Your task to perform on an android device: What's the weather going to be this weekend? Image 0: 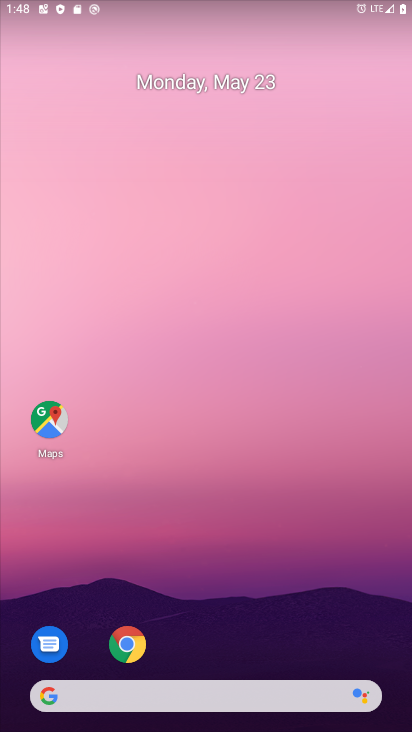
Step 0: drag from (323, 622) to (342, 81)
Your task to perform on an android device: What's the weather going to be this weekend? Image 1: 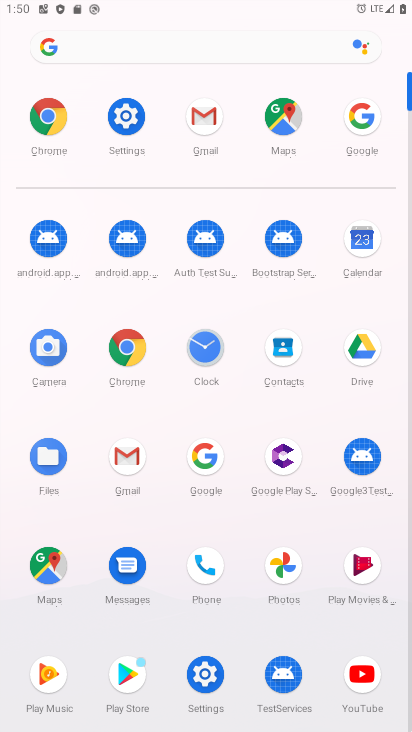
Step 1: click (196, 476)
Your task to perform on an android device: What's the weather going to be this weekend? Image 2: 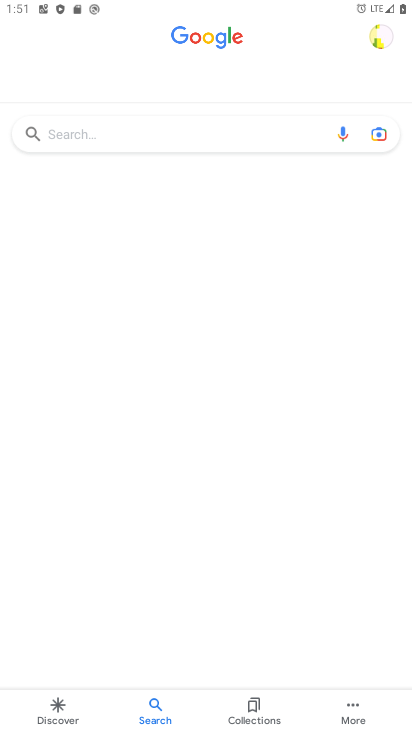
Step 2: click (132, 130)
Your task to perform on an android device: What's the weather going to be this weekend? Image 3: 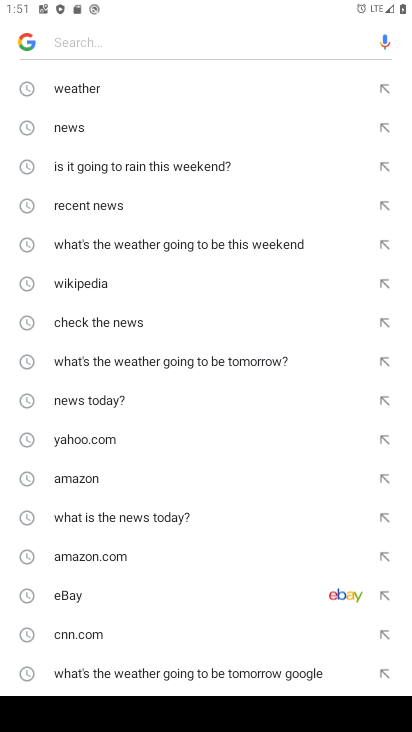
Step 3: click (234, 250)
Your task to perform on an android device: What's the weather going to be this weekend? Image 4: 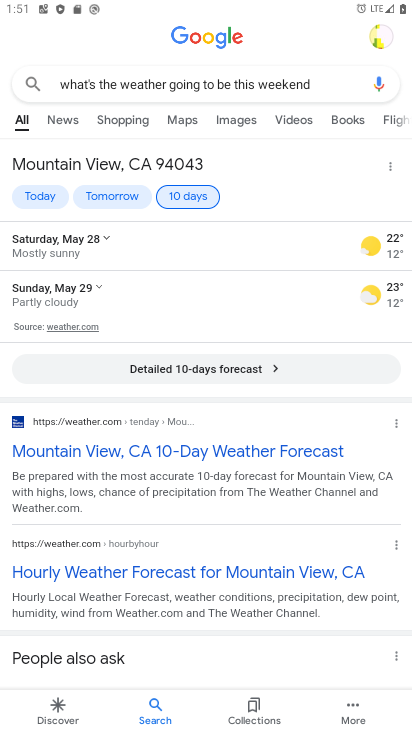
Step 4: task complete